Your task to perform on an android device: Go to wifi settings Image 0: 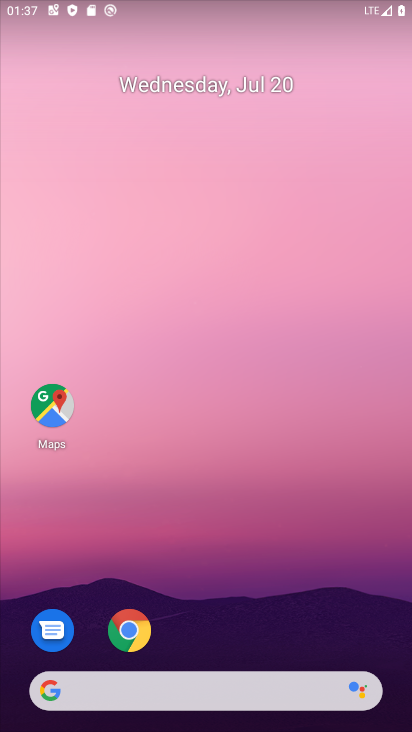
Step 0: drag from (303, 621) to (285, 68)
Your task to perform on an android device: Go to wifi settings Image 1: 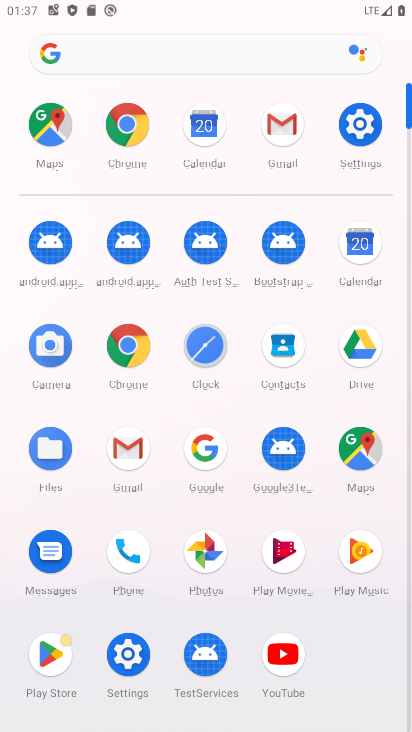
Step 1: click (364, 133)
Your task to perform on an android device: Go to wifi settings Image 2: 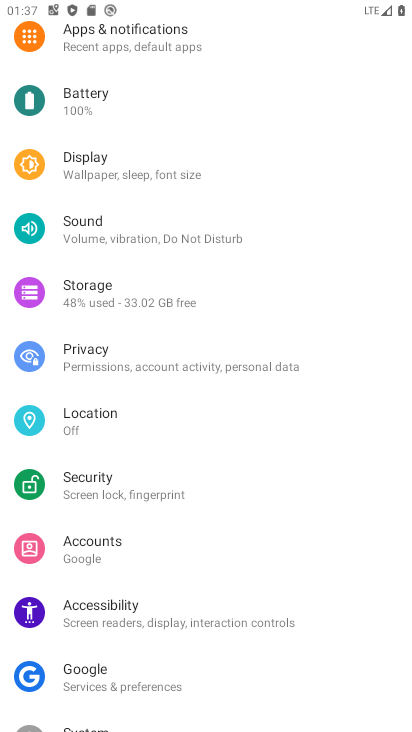
Step 2: drag from (194, 110) to (126, 558)
Your task to perform on an android device: Go to wifi settings Image 3: 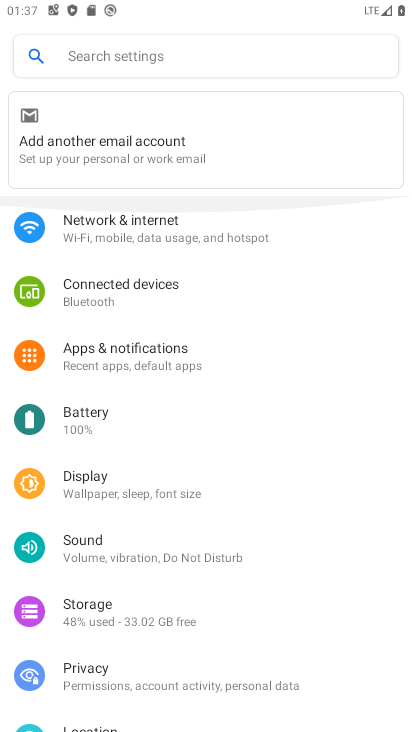
Step 3: click (126, 236)
Your task to perform on an android device: Go to wifi settings Image 4: 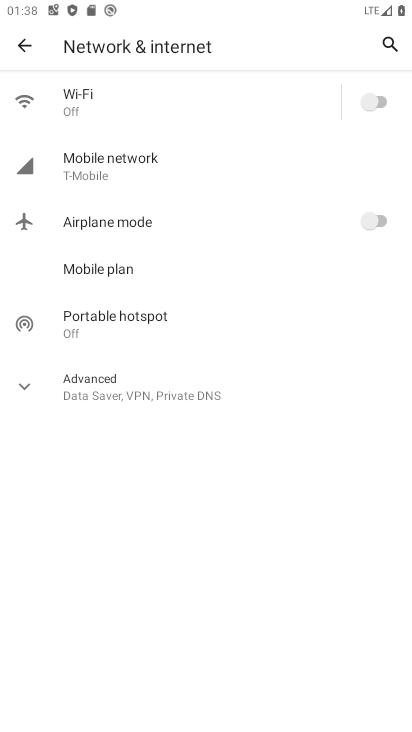
Step 4: click (277, 95)
Your task to perform on an android device: Go to wifi settings Image 5: 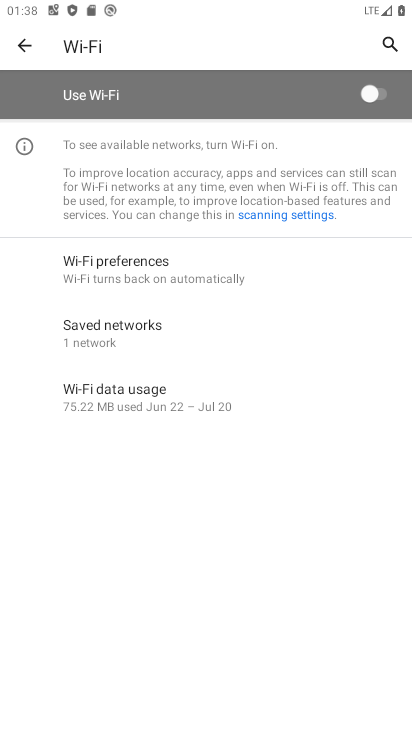
Step 5: click (373, 98)
Your task to perform on an android device: Go to wifi settings Image 6: 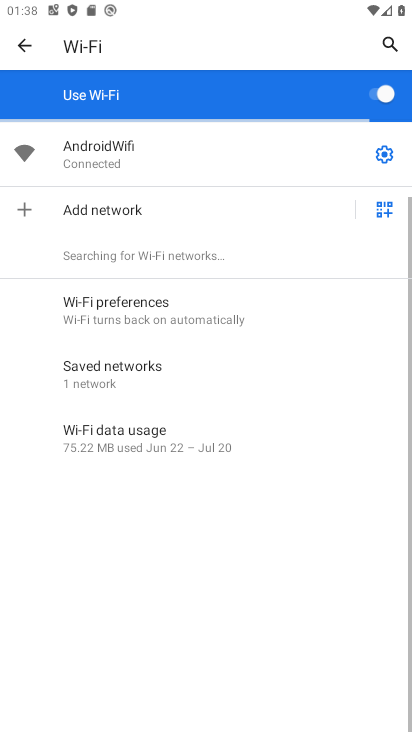
Step 6: click (388, 158)
Your task to perform on an android device: Go to wifi settings Image 7: 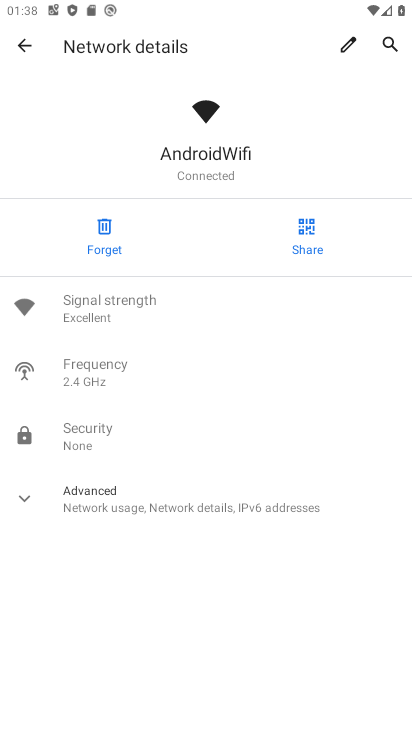
Step 7: task complete